Your task to perform on an android device: turn on the 24-hour format for clock Image 0: 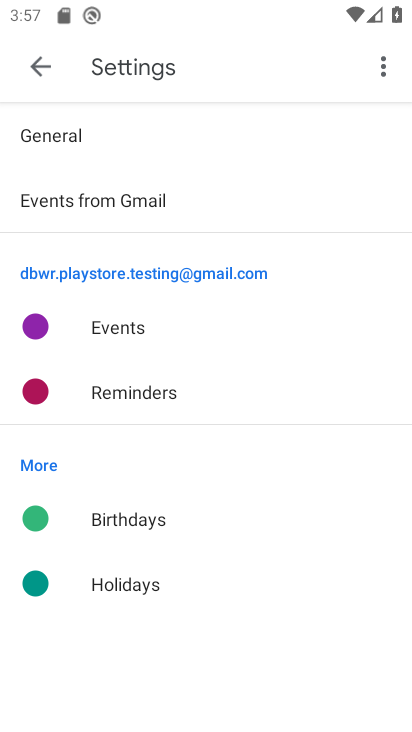
Step 0: press home button
Your task to perform on an android device: turn on the 24-hour format for clock Image 1: 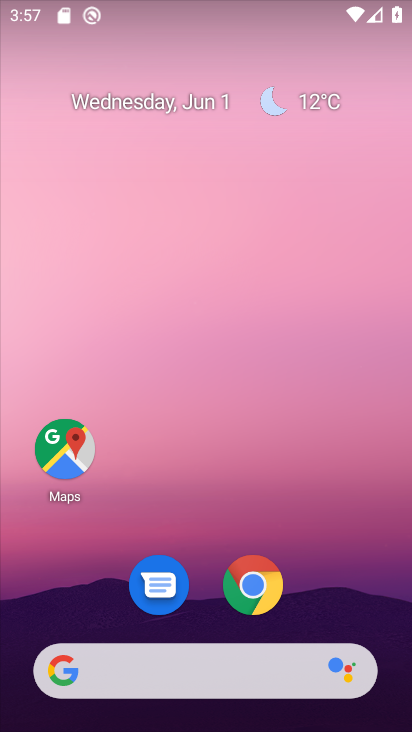
Step 1: drag from (211, 521) to (218, 0)
Your task to perform on an android device: turn on the 24-hour format for clock Image 2: 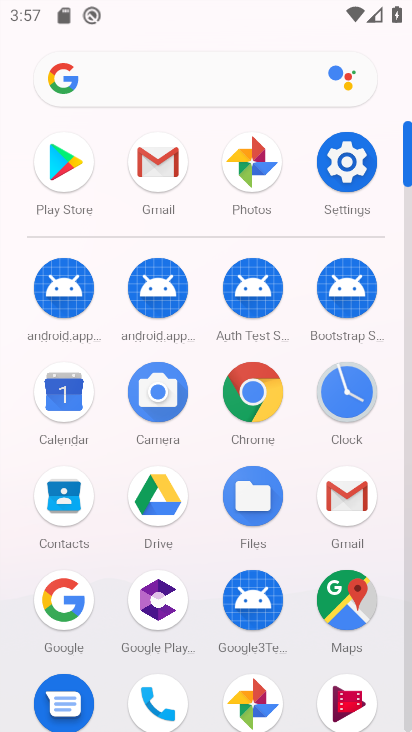
Step 2: click (345, 388)
Your task to perform on an android device: turn on the 24-hour format for clock Image 3: 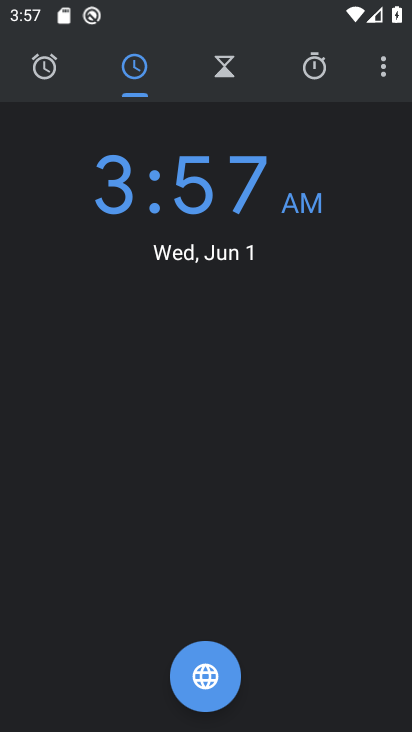
Step 3: click (375, 74)
Your task to perform on an android device: turn on the 24-hour format for clock Image 4: 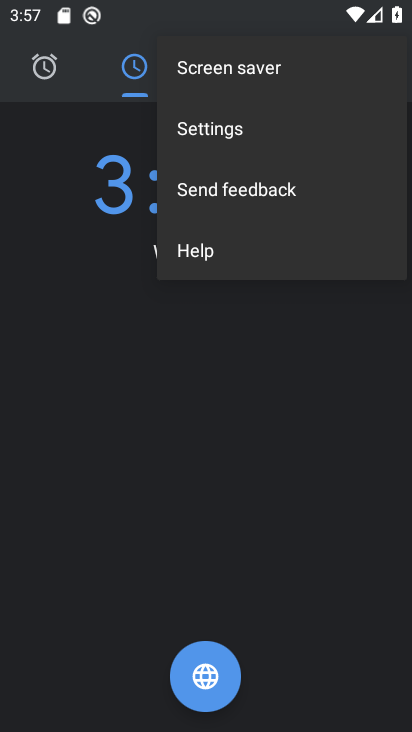
Step 4: click (290, 128)
Your task to perform on an android device: turn on the 24-hour format for clock Image 5: 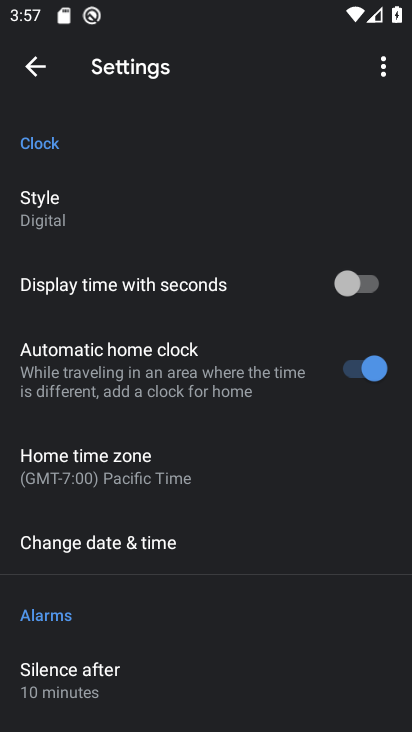
Step 5: drag from (269, 533) to (256, 233)
Your task to perform on an android device: turn on the 24-hour format for clock Image 6: 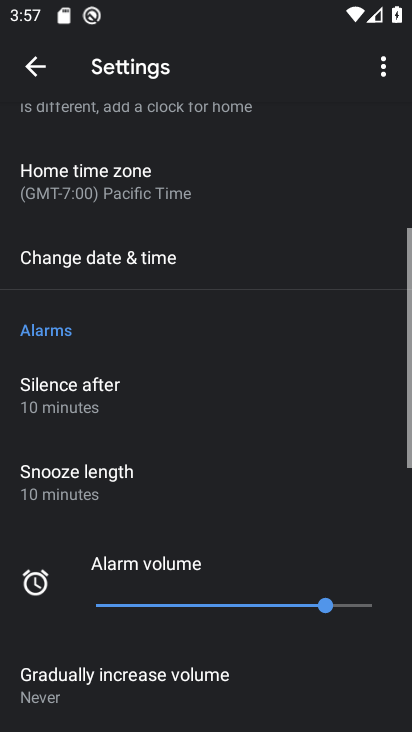
Step 6: click (257, 258)
Your task to perform on an android device: turn on the 24-hour format for clock Image 7: 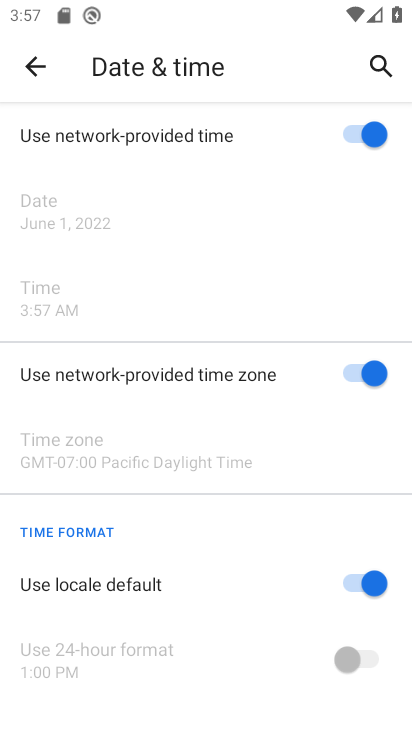
Step 7: click (350, 576)
Your task to perform on an android device: turn on the 24-hour format for clock Image 8: 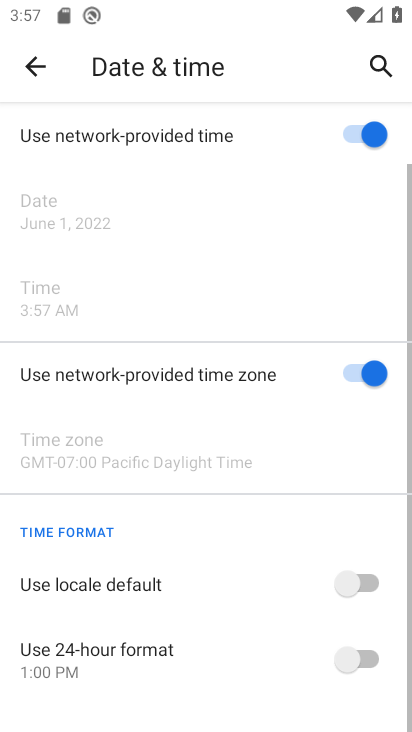
Step 8: click (372, 651)
Your task to perform on an android device: turn on the 24-hour format for clock Image 9: 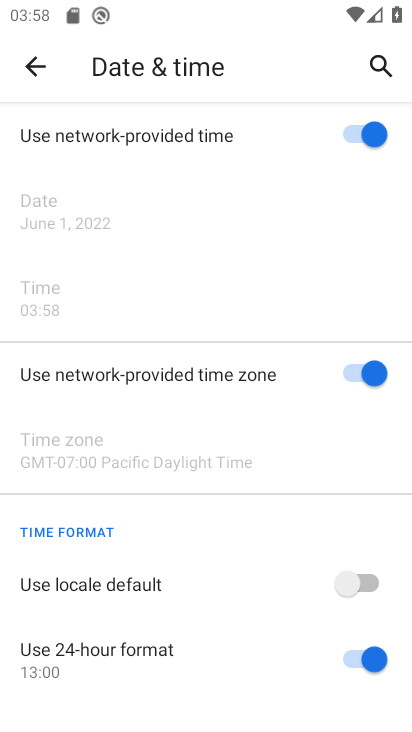
Step 9: task complete